Your task to perform on an android device: Open notification settings Image 0: 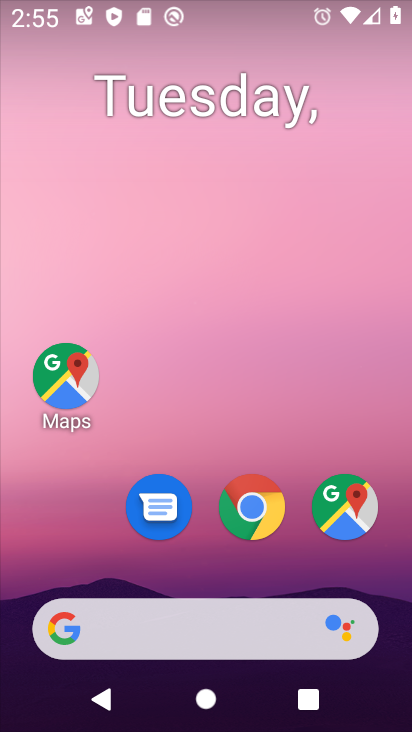
Step 0: drag from (204, 473) to (226, 134)
Your task to perform on an android device: Open notification settings Image 1: 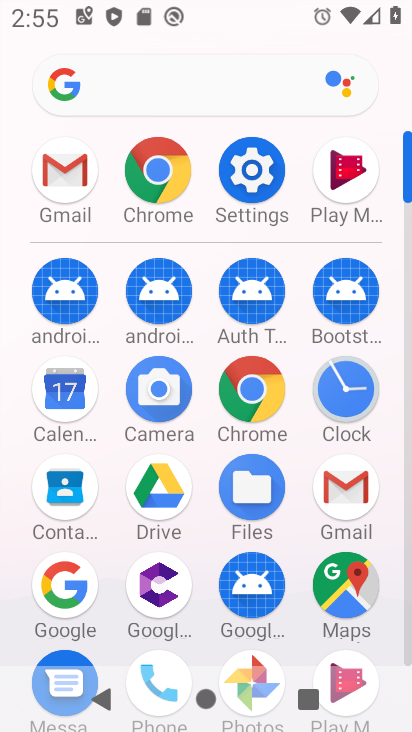
Step 1: click (248, 165)
Your task to perform on an android device: Open notification settings Image 2: 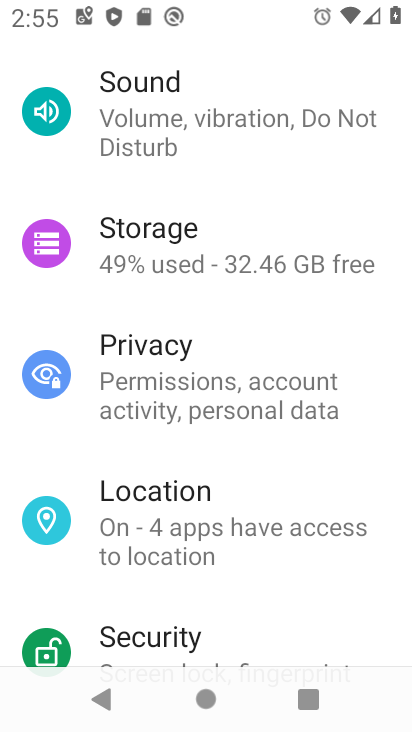
Step 2: drag from (197, 184) to (151, 597)
Your task to perform on an android device: Open notification settings Image 3: 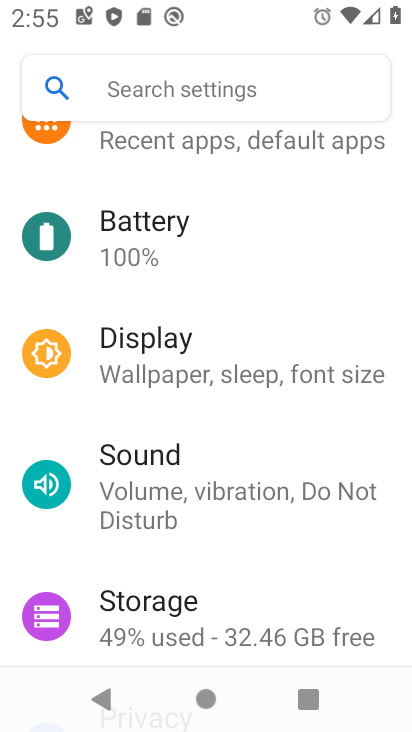
Step 3: drag from (184, 241) to (114, 637)
Your task to perform on an android device: Open notification settings Image 4: 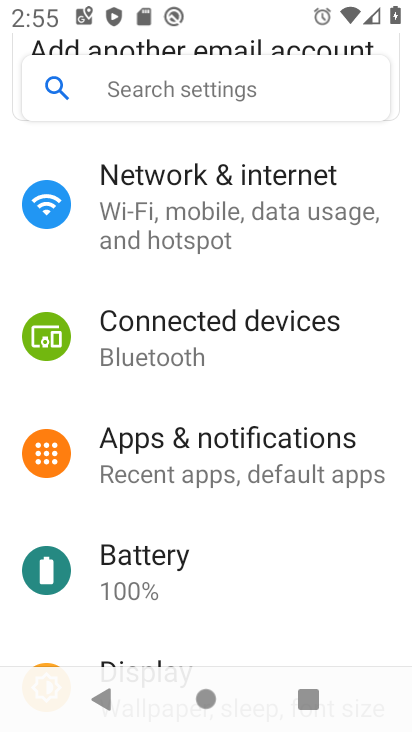
Step 4: click (195, 474)
Your task to perform on an android device: Open notification settings Image 5: 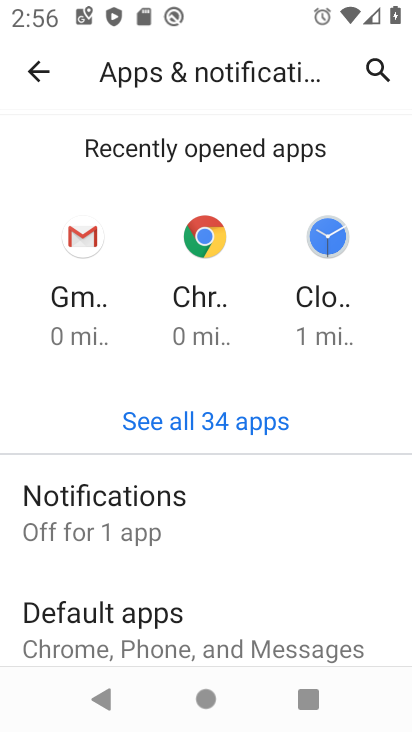
Step 5: task complete